Your task to perform on an android device: turn off notifications in google photos Image 0: 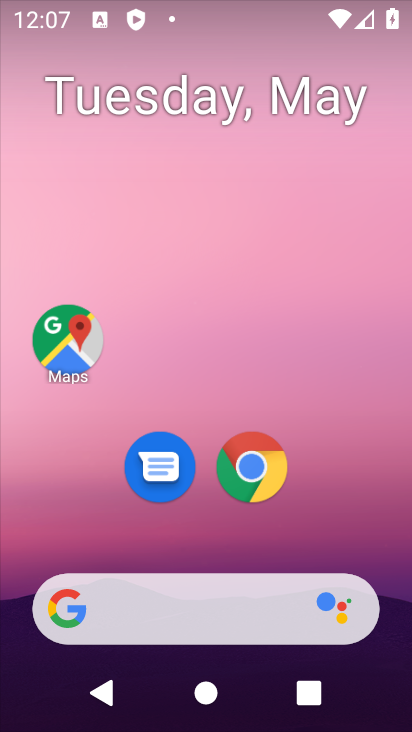
Step 0: drag from (313, 541) to (281, 40)
Your task to perform on an android device: turn off notifications in google photos Image 1: 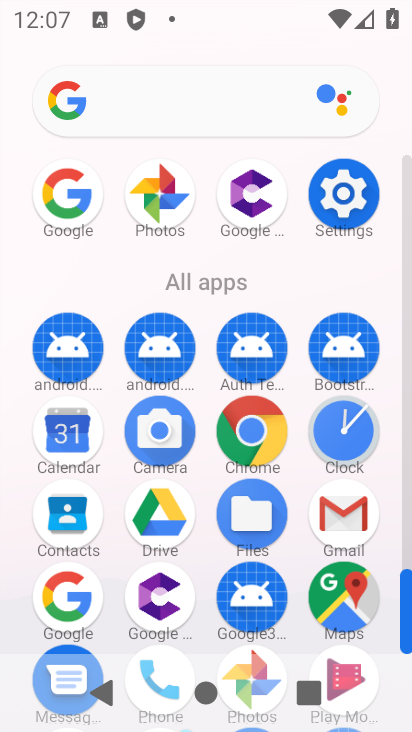
Step 1: drag from (298, 590) to (290, 252)
Your task to perform on an android device: turn off notifications in google photos Image 2: 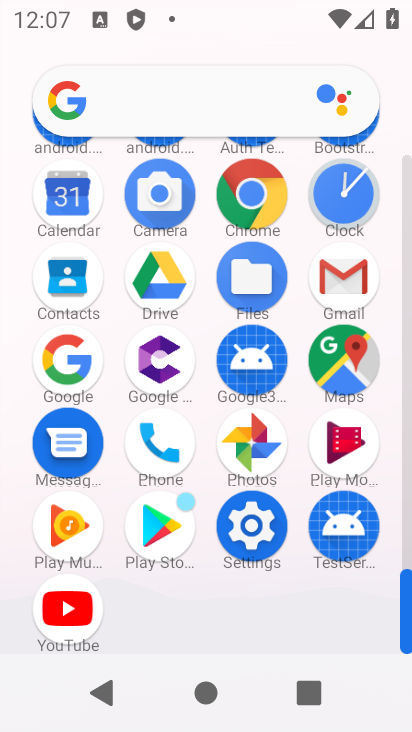
Step 2: click (246, 451)
Your task to perform on an android device: turn off notifications in google photos Image 3: 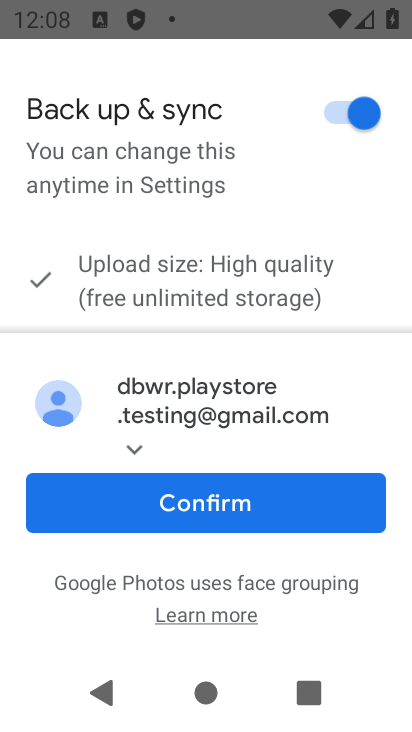
Step 3: click (248, 489)
Your task to perform on an android device: turn off notifications in google photos Image 4: 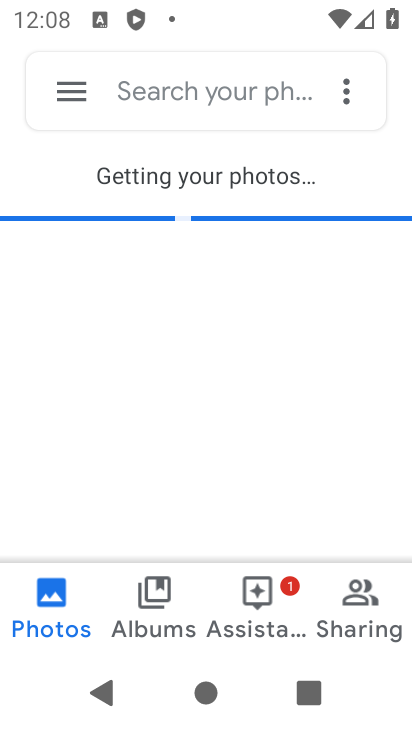
Step 4: click (56, 98)
Your task to perform on an android device: turn off notifications in google photos Image 5: 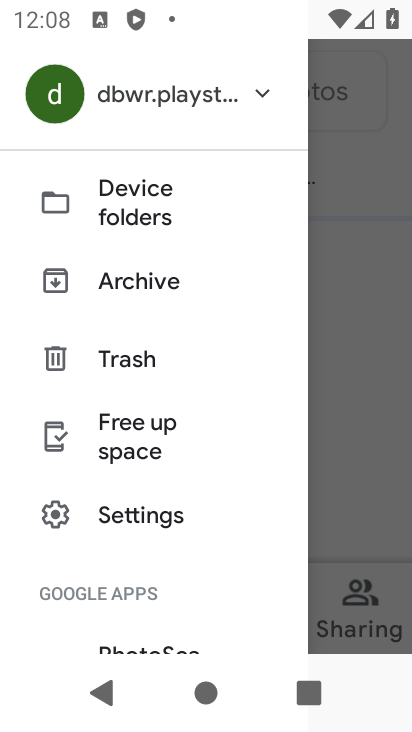
Step 5: click (147, 511)
Your task to perform on an android device: turn off notifications in google photos Image 6: 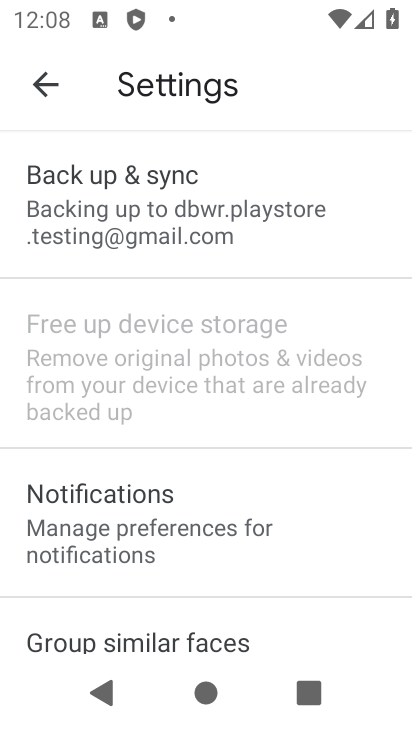
Step 6: click (205, 537)
Your task to perform on an android device: turn off notifications in google photos Image 7: 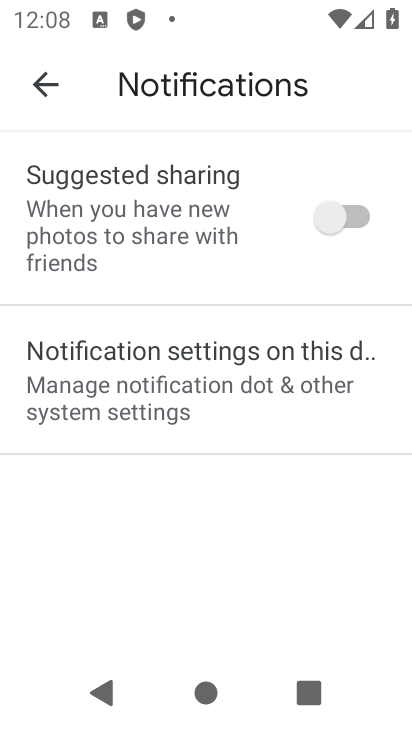
Step 7: click (232, 415)
Your task to perform on an android device: turn off notifications in google photos Image 8: 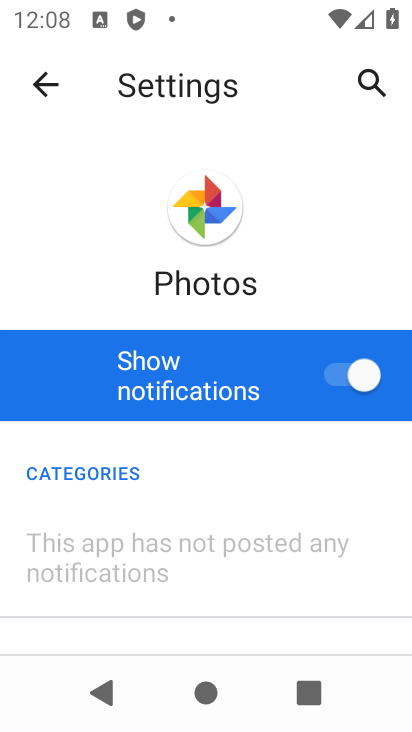
Step 8: click (339, 383)
Your task to perform on an android device: turn off notifications in google photos Image 9: 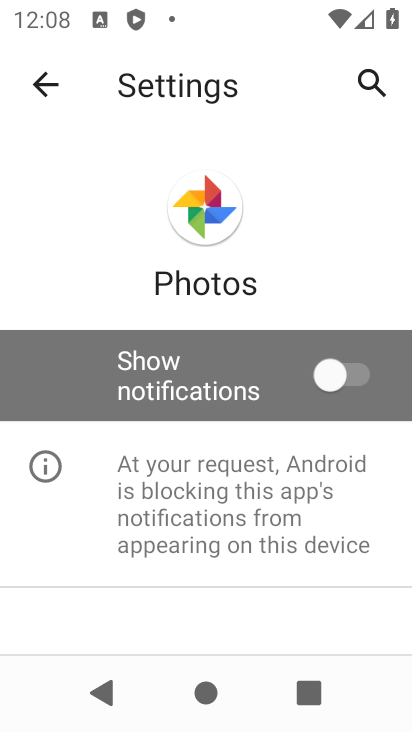
Step 9: task complete